Your task to perform on an android device: delete location history Image 0: 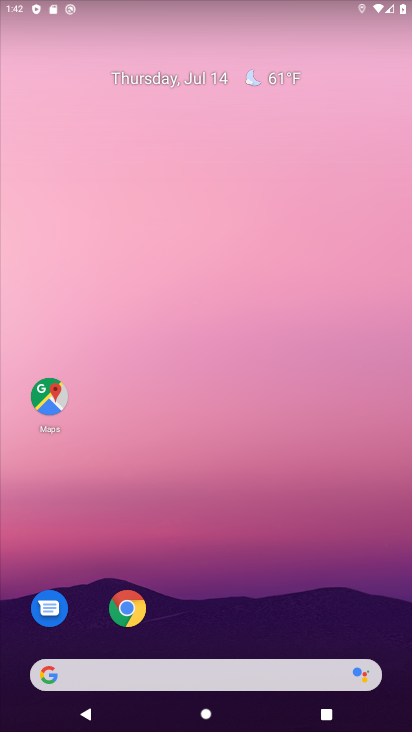
Step 0: click (47, 401)
Your task to perform on an android device: delete location history Image 1: 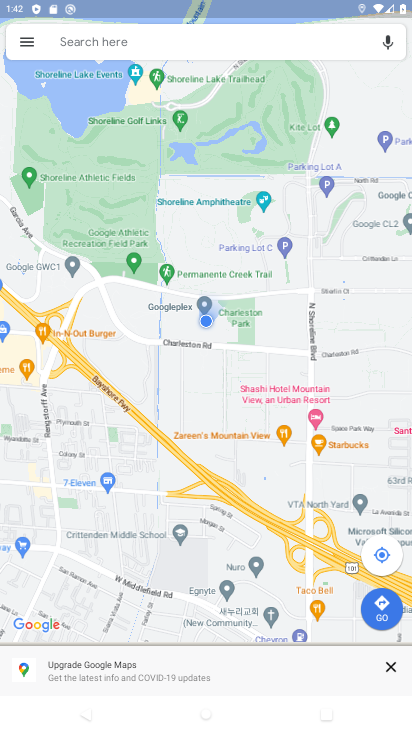
Step 1: click (26, 43)
Your task to perform on an android device: delete location history Image 2: 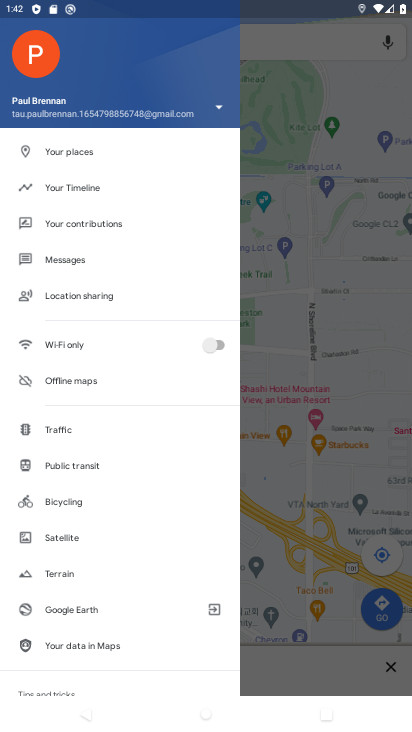
Step 2: drag from (75, 548) to (145, 448)
Your task to perform on an android device: delete location history Image 3: 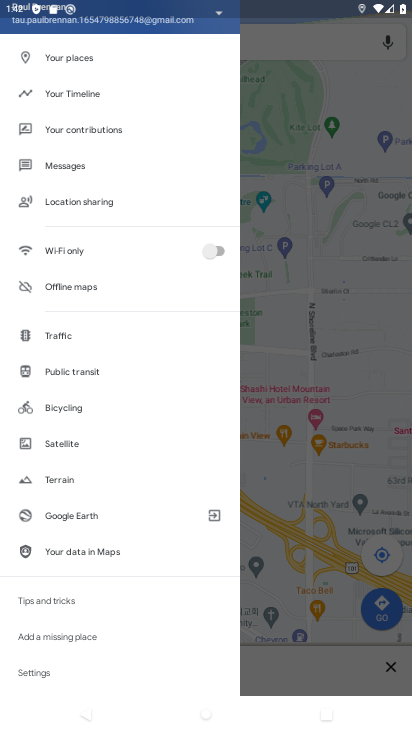
Step 3: drag from (63, 609) to (142, 518)
Your task to perform on an android device: delete location history Image 4: 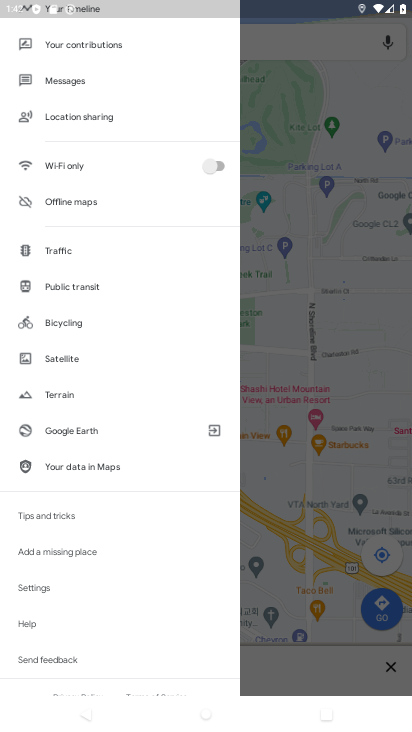
Step 4: click (36, 591)
Your task to perform on an android device: delete location history Image 5: 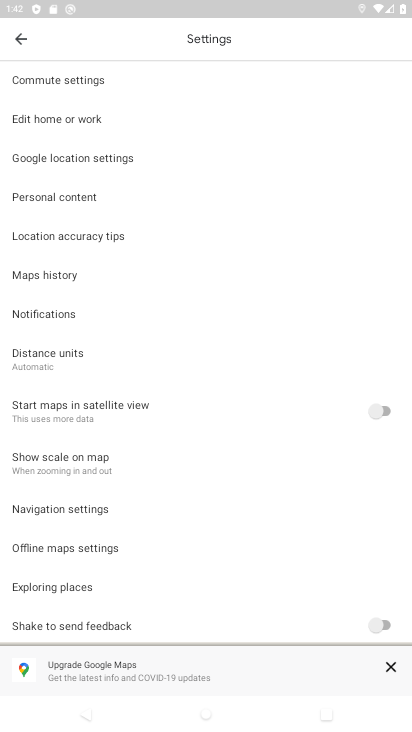
Step 5: click (69, 198)
Your task to perform on an android device: delete location history Image 6: 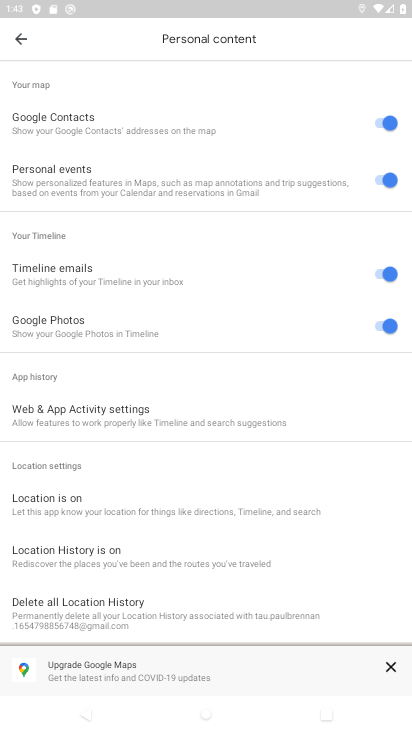
Step 6: drag from (82, 581) to (128, 478)
Your task to perform on an android device: delete location history Image 7: 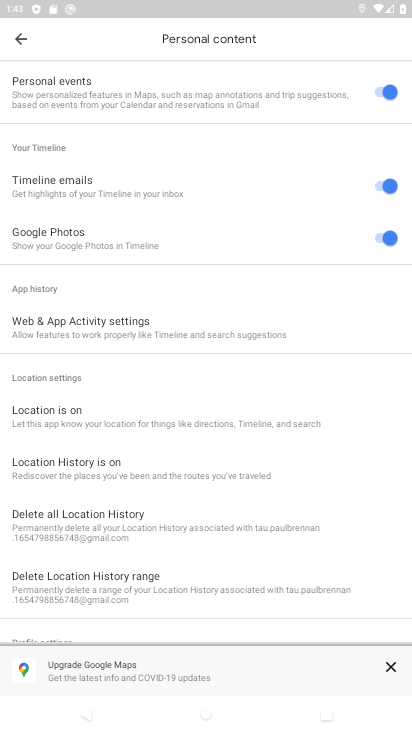
Step 7: click (100, 509)
Your task to perform on an android device: delete location history Image 8: 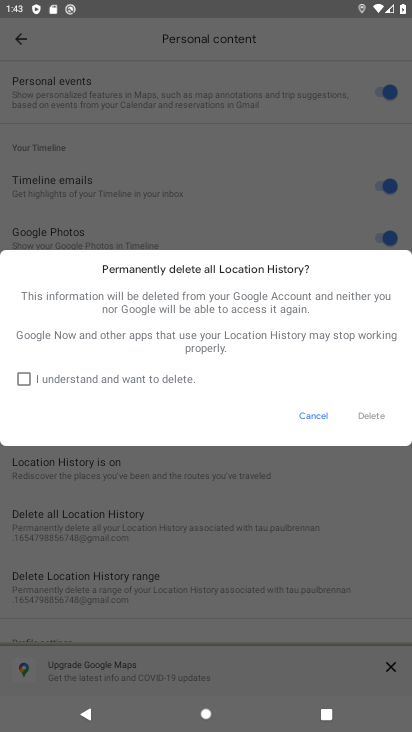
Step 8: click (23, 377)
Your task to perform on an android device: delete location history Image 9: 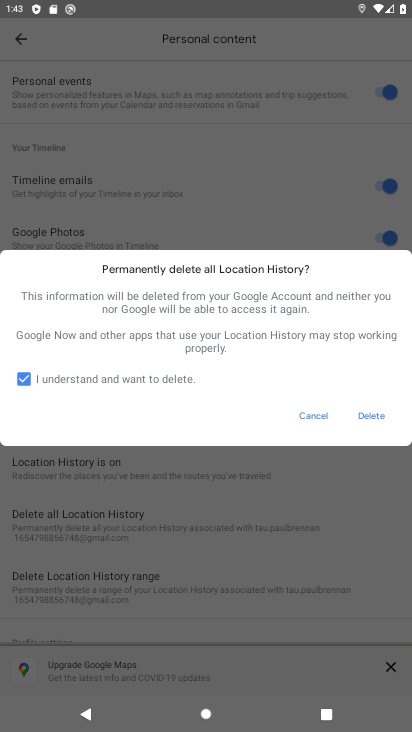
Step 9: click (382, 415)
Your task to perform on an android device: delete location history Image 10: 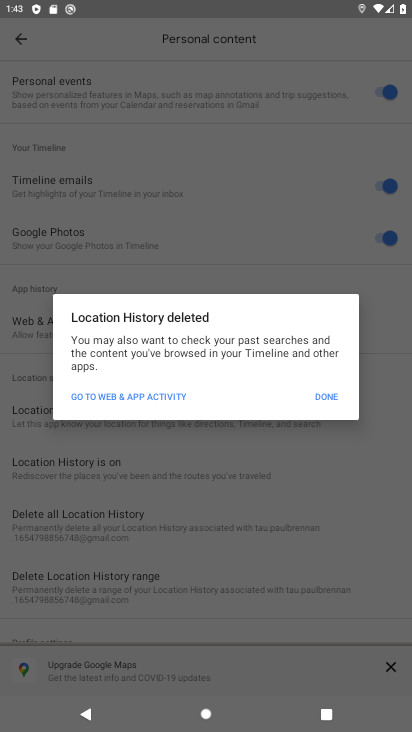
Step 10: click (322, 393)
Your task to perform on an android device: delete location history Image 11: 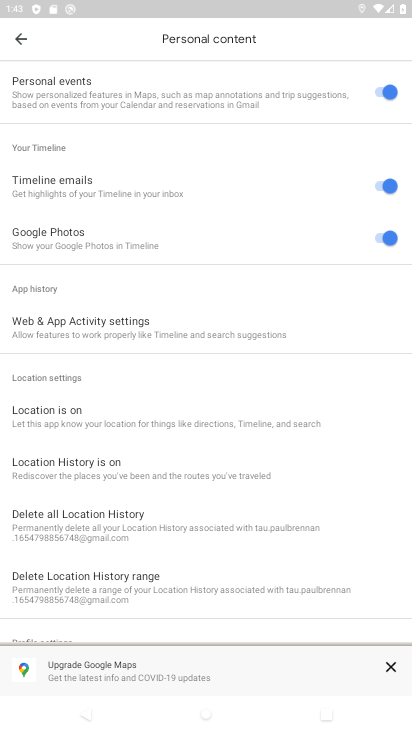
Step 11: task complete